Your task to perform on an android device: Open display settings Image 0: 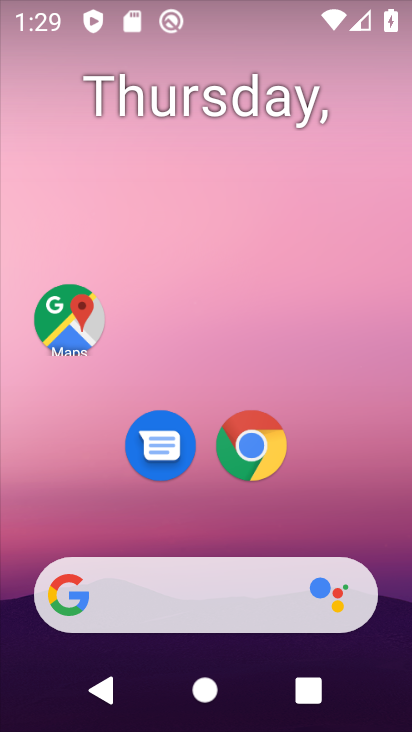
Step 0: press home button
Your task to perform on an android device: Open display settings Image 1: 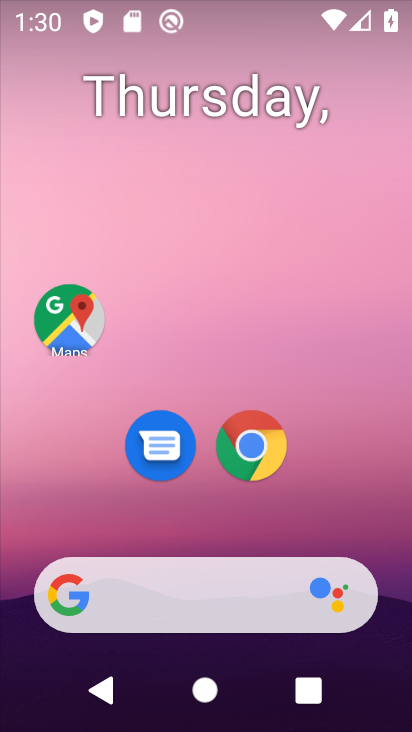
Step 1: drag from (66, 532) to (361, 161)
Your task to perform on an android device: Open display settings Image 2: 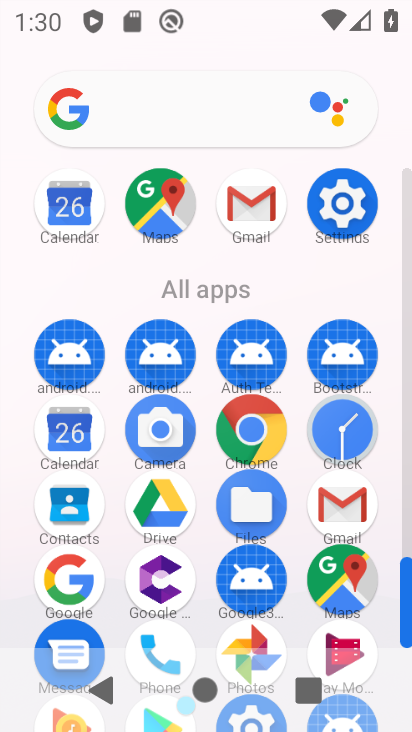
Step 2: click (329, 200)
Your task to perform on an android device: Open display settings Image 3: 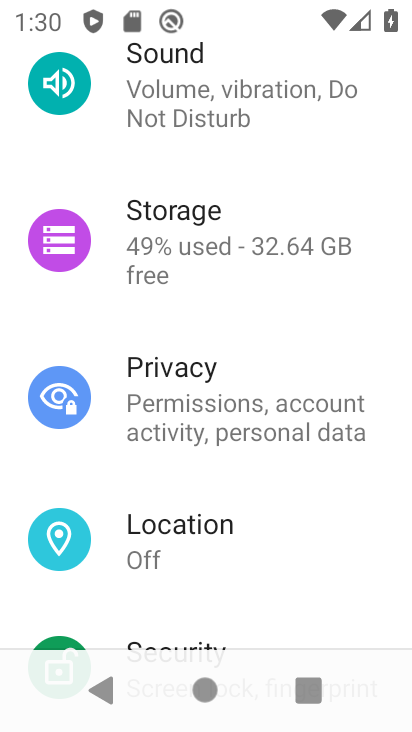
Step 3: drag from (67, 507) to (328, 169)
Your task to perform on an android device: Open display settings Image 4: 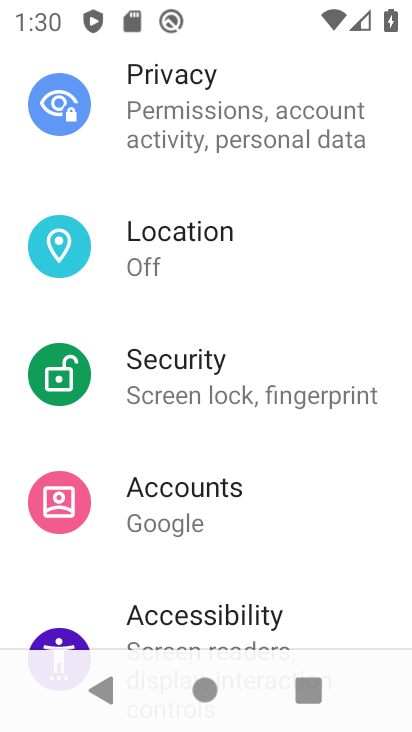
Step 4: drag from (227, 281) to (154, 620)
Your task to perform on an android device: Open display settings Image 5: 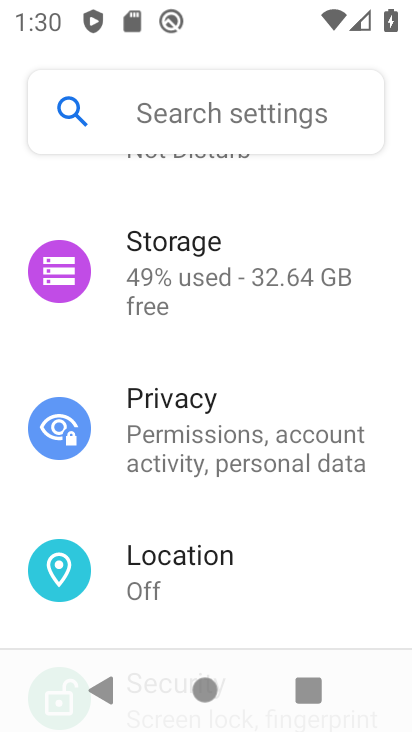
Step 5: drag from (193, 245) to (179, 625)
Your task to perform on an android device: Open display settings Image 6: 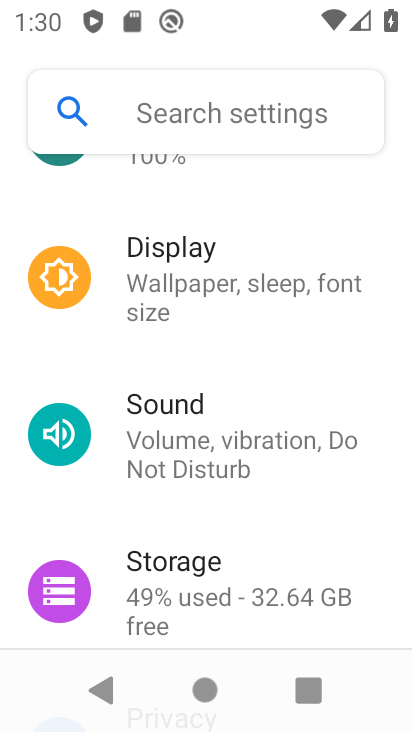
Step 6: click (180, 276)
Your task to perform on an android device: Open display settings Image 7: 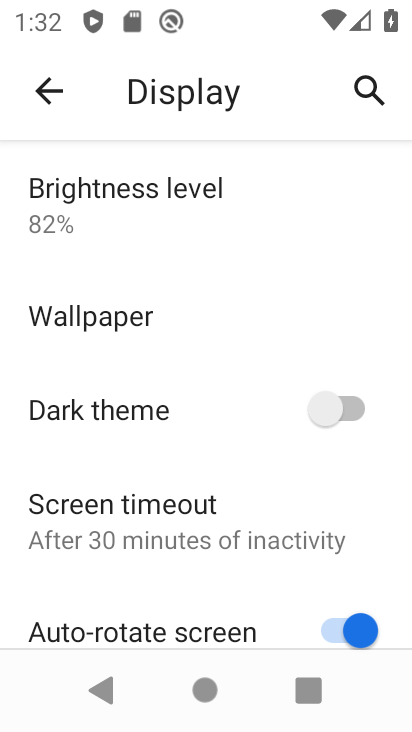
Step 7: task complete